Your task to perform on an android device: change keyboard looks Image 0: 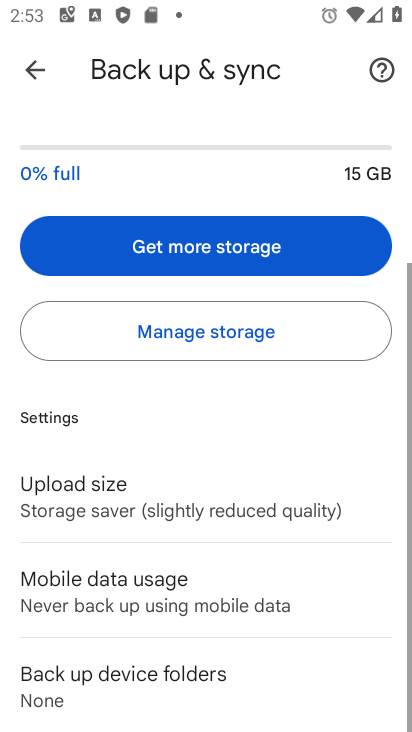
Step 0: drag from (197, 167) to (272, 478)
Your task to perform on an android device: change keyboard looks Image 1: 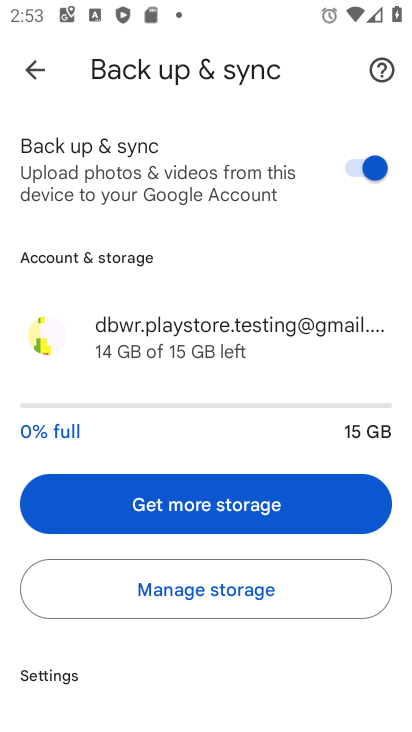
Step 1: click (43, 71)
Your task to perform on an android device: change keyboard looks Image 2: 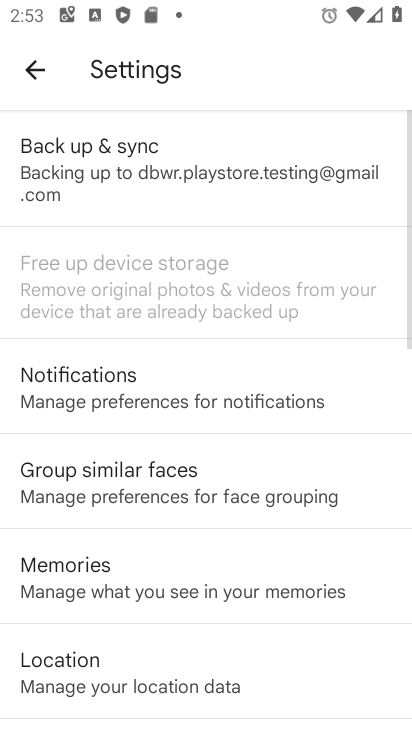
Step 2: drag from (243, 588) to (245, 221)
Your task to perform on an android device: change keyboard looks Image 3: 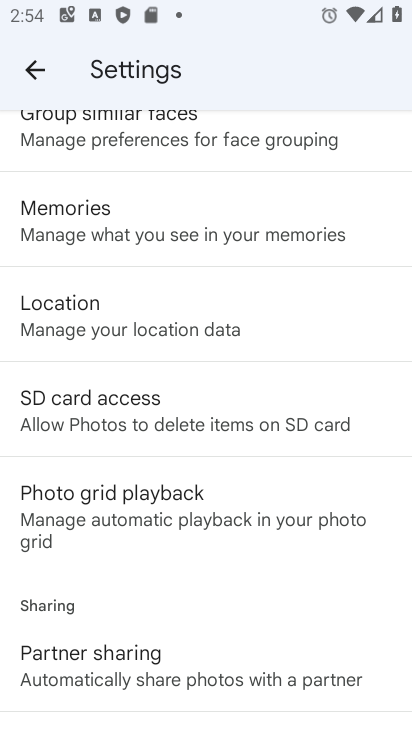
Step 3: drag from (183, 241) to (297, 705)
Your task to perform on an android device: change keyboard looks Image 4: 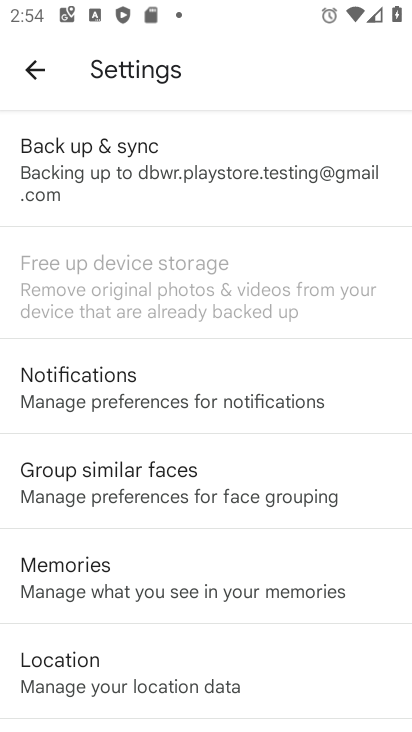
Step 4: press home button
Your task to perform on an android device: change keyboard looks Image 5: 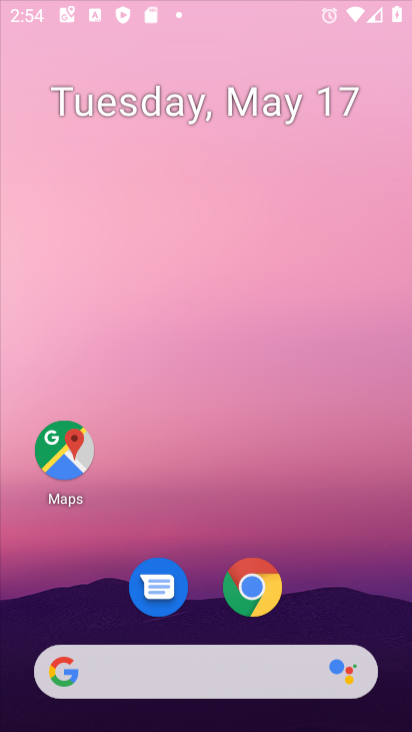
Step 5: drag from (207, 538) to (210, 0)
Your task to perform on an android device: change keyboard looks Image 6: 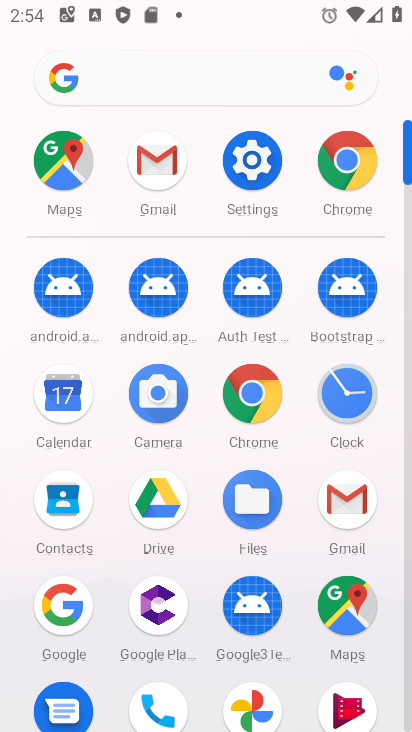
Step 6: click (259, 156)
Your task to perform on an android device: change keyboard looks Image 7: 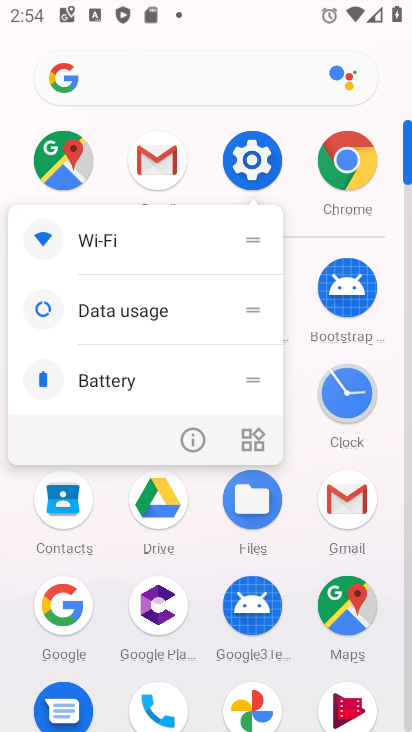
Step 7: click (186, 431)
Your task to perform on an android device: change keyboard looks Image 8: 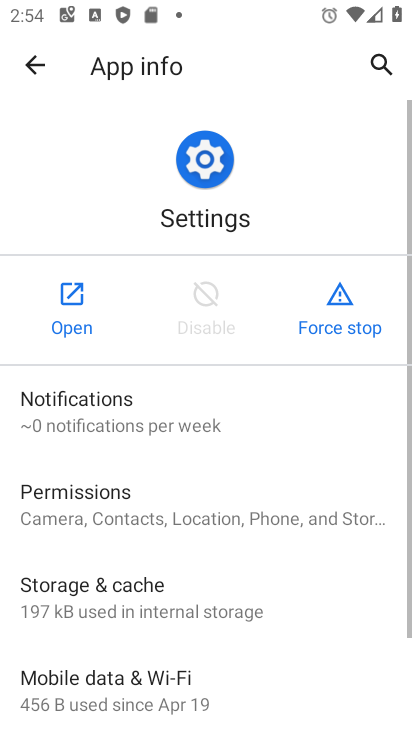
Step 8: click (74, 324)
Your task to perform on an android device: change keyboard looks Image 9: 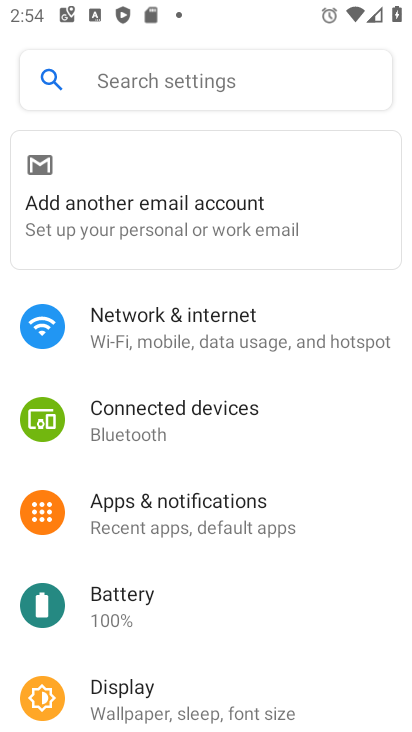
Step 9: drag from (207, 646) to (215, 215)
Your task to perform on an android device: change keyboard looks Image 10: 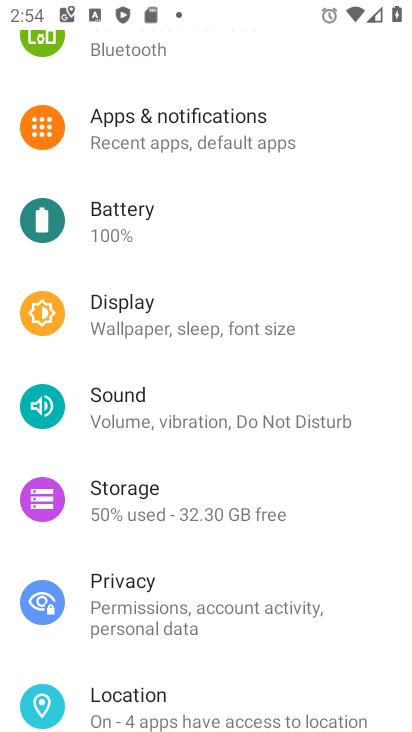
Step 10: drag from (237, 588) to (279, 265)
Your task to perform on an android device: change keyboard looks Image 11: 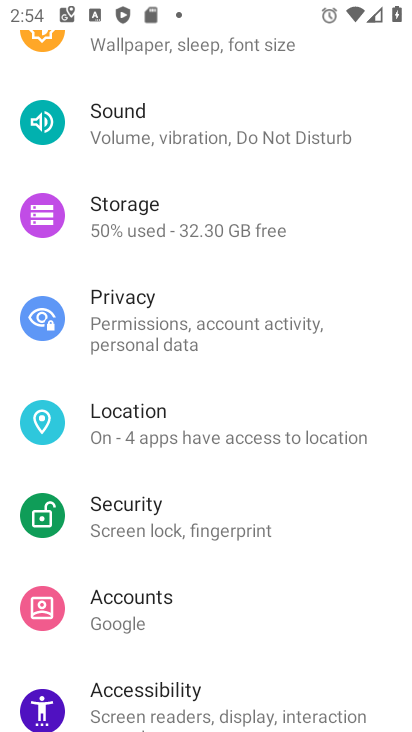
Step 11: drag from (182, 668) to (349, 270)
Your task to perform on an android device: change keyboard looks Image 12: 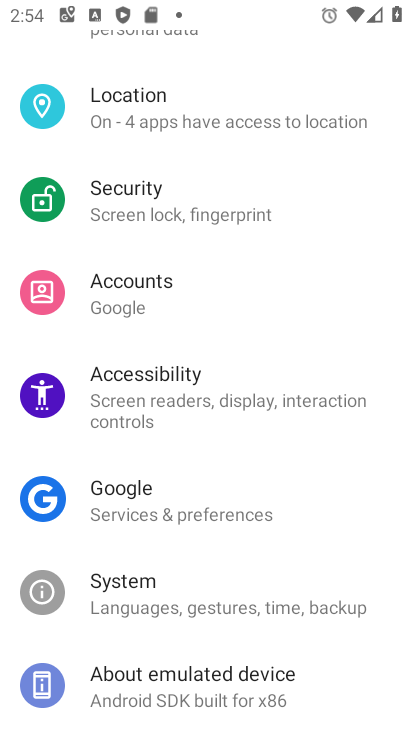
Step 12: click (177, 604)
Your task to perform on an android device: change keyboard looks Image 13: 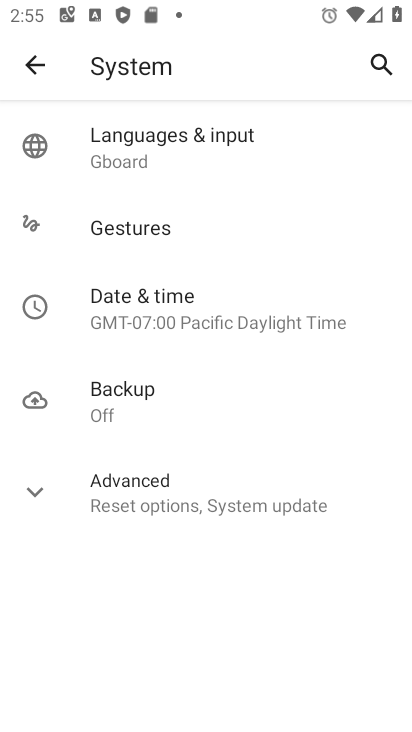
Step 13: click (167, 140)
Your task to perform on an android device: change keyboard looks Image 14: 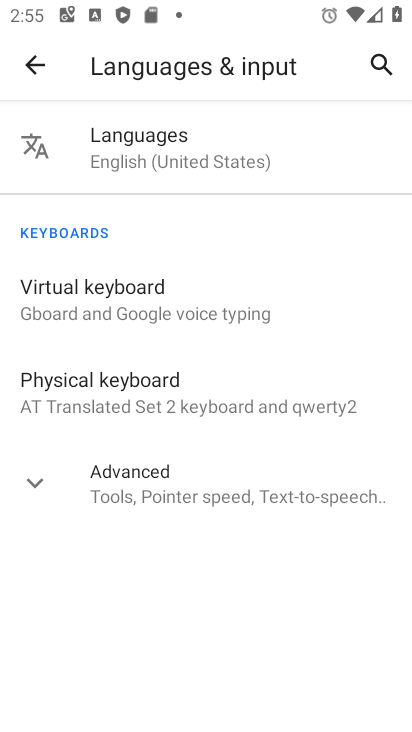
Step 14: click (140, 314)
Your task to perform on an android device: change keyboard looks Image 15: 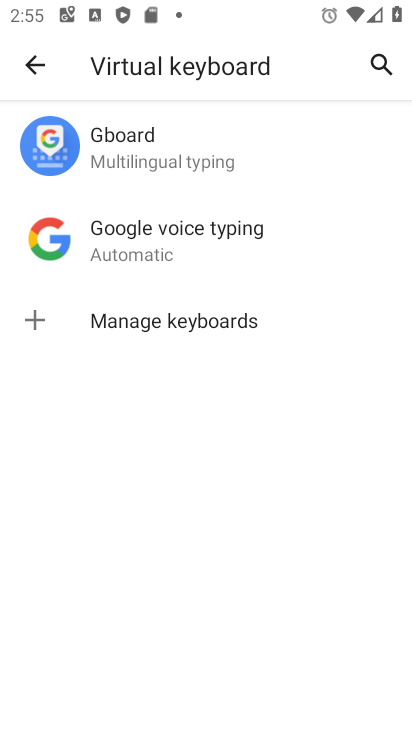
Step 15: click (165, 158)
Your task to perform on an android device: change keyboard looks Image 16: 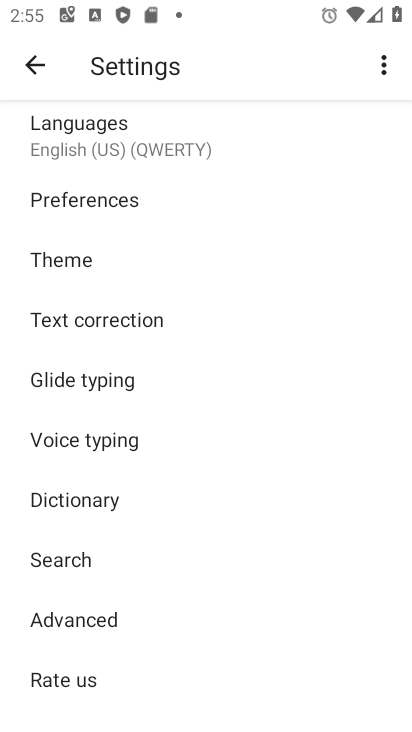
Step 16: click (73, 249)
Your task to perform on an android device: change keyboard looks Image 17: 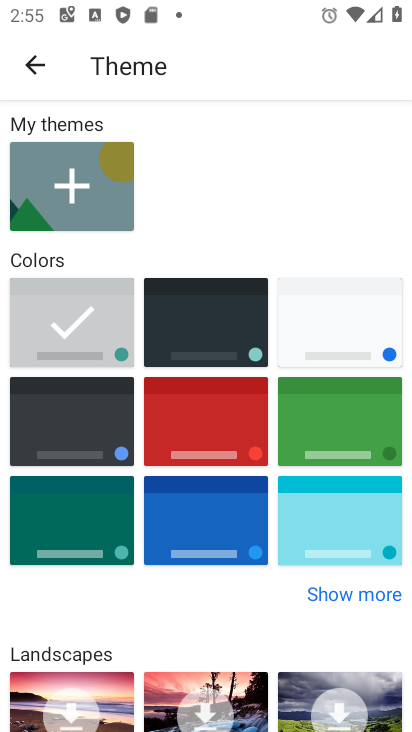
Step 17: click (63, 444)
Your task to perform on an android device: change keyboard looks Image 18: 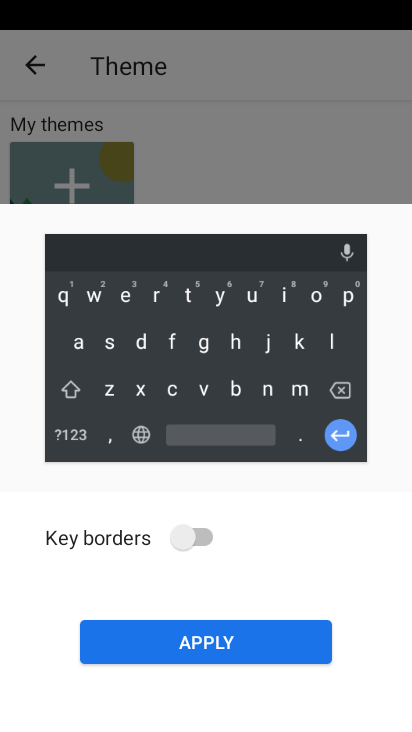
Step 18: click (199, 650)
Your task to perform on an android device: change keyboard looks Image 19: 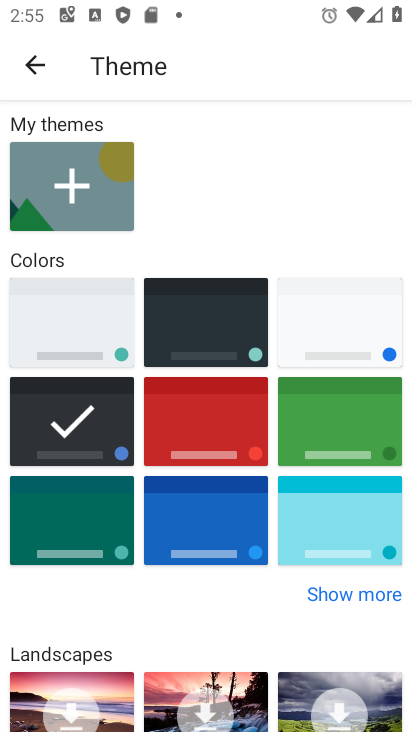
Step 19: task complete